Your task to perform on an android device: open a bookmark in the chrome app Image 0: 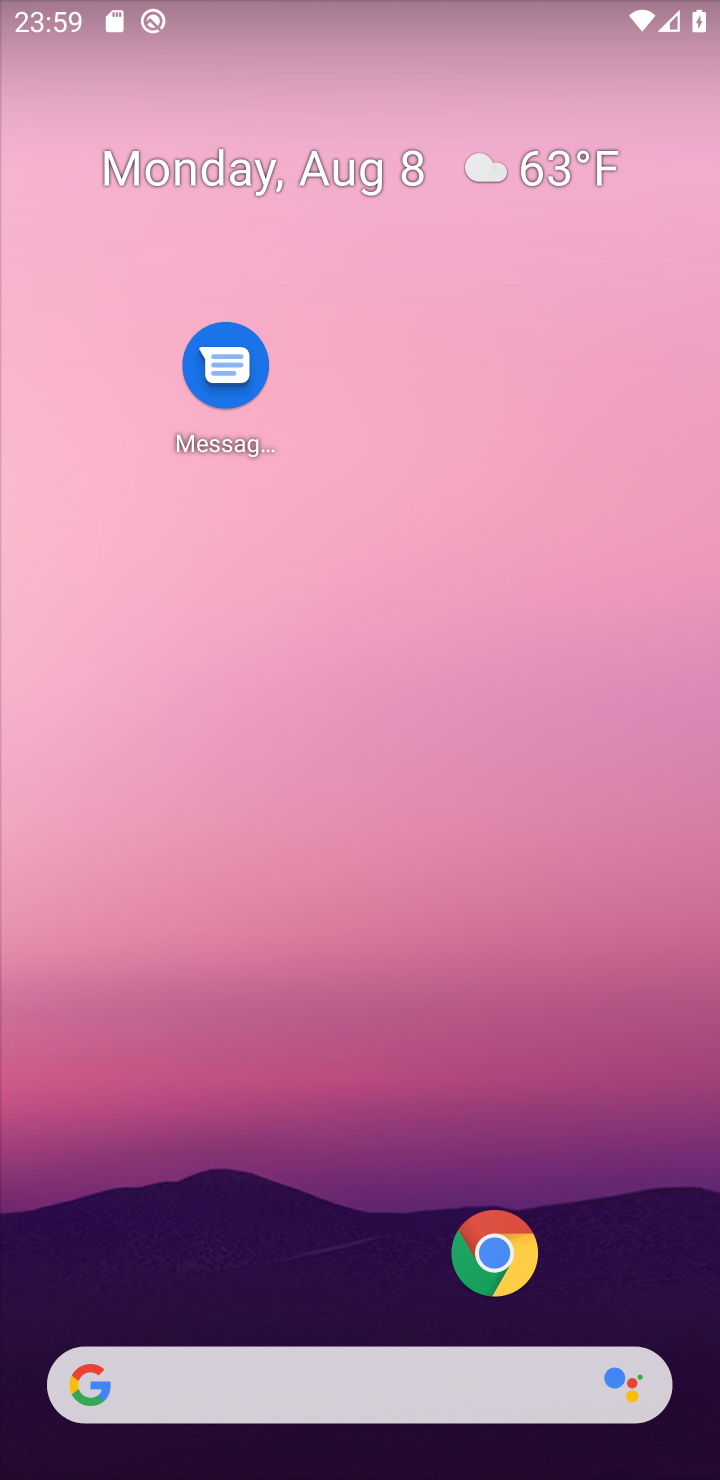
Step 0: drag from (411, 1149) to (420, 313)
Your task to perform on an android device: open a bookmark in the chrome app Image 1: 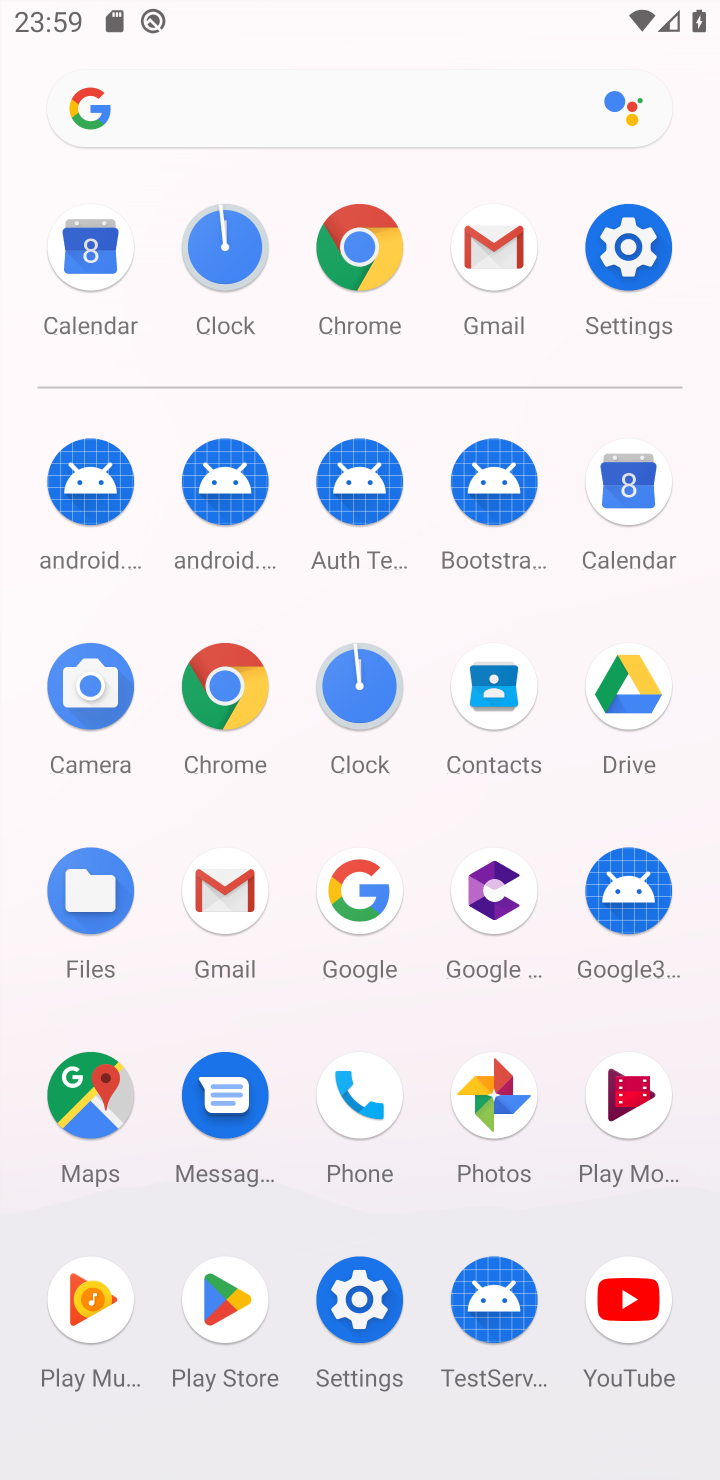
Step 1: click (247, 690)
Your task to perform on an android device: open a bookmark in the chrome app Image 2: 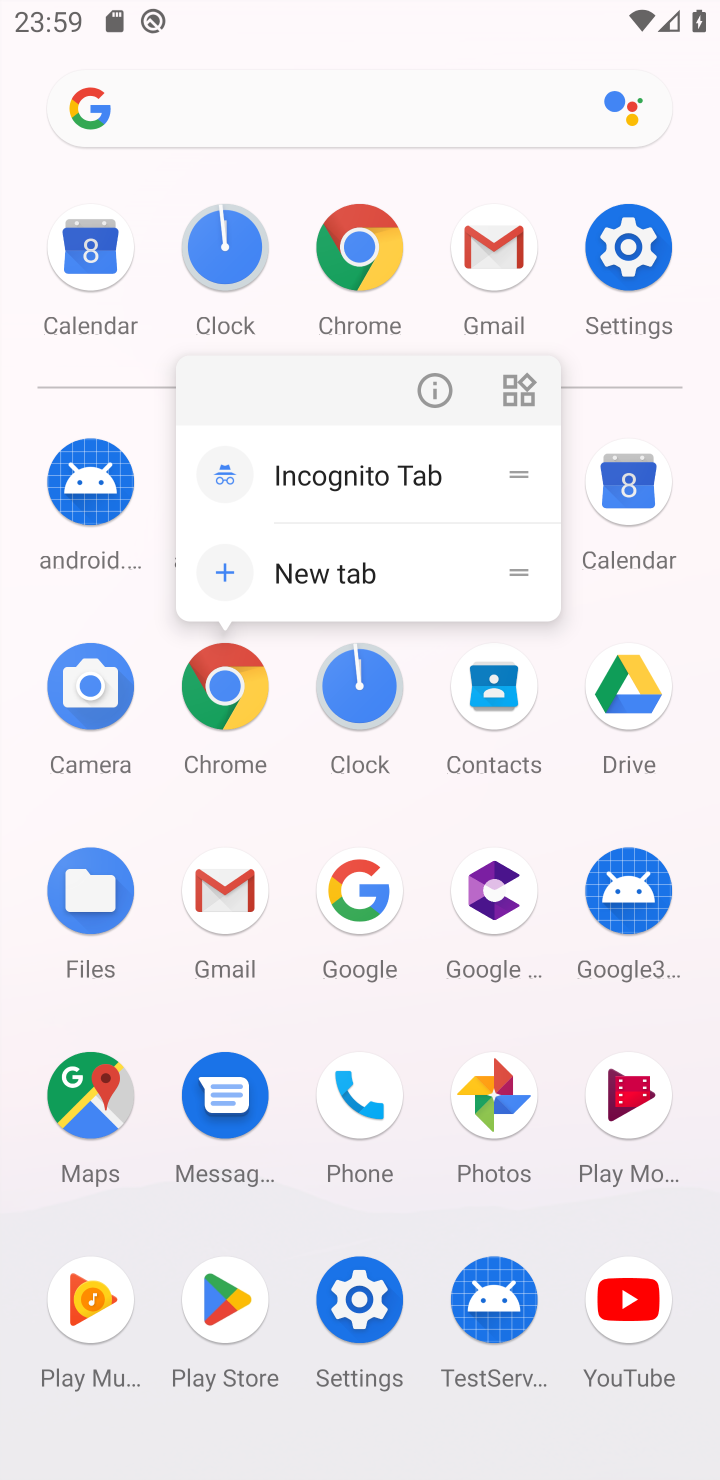
Step 2: click (237, 689)
Your task to perform on an android device: open a bookmark in the chrome app Image 3: 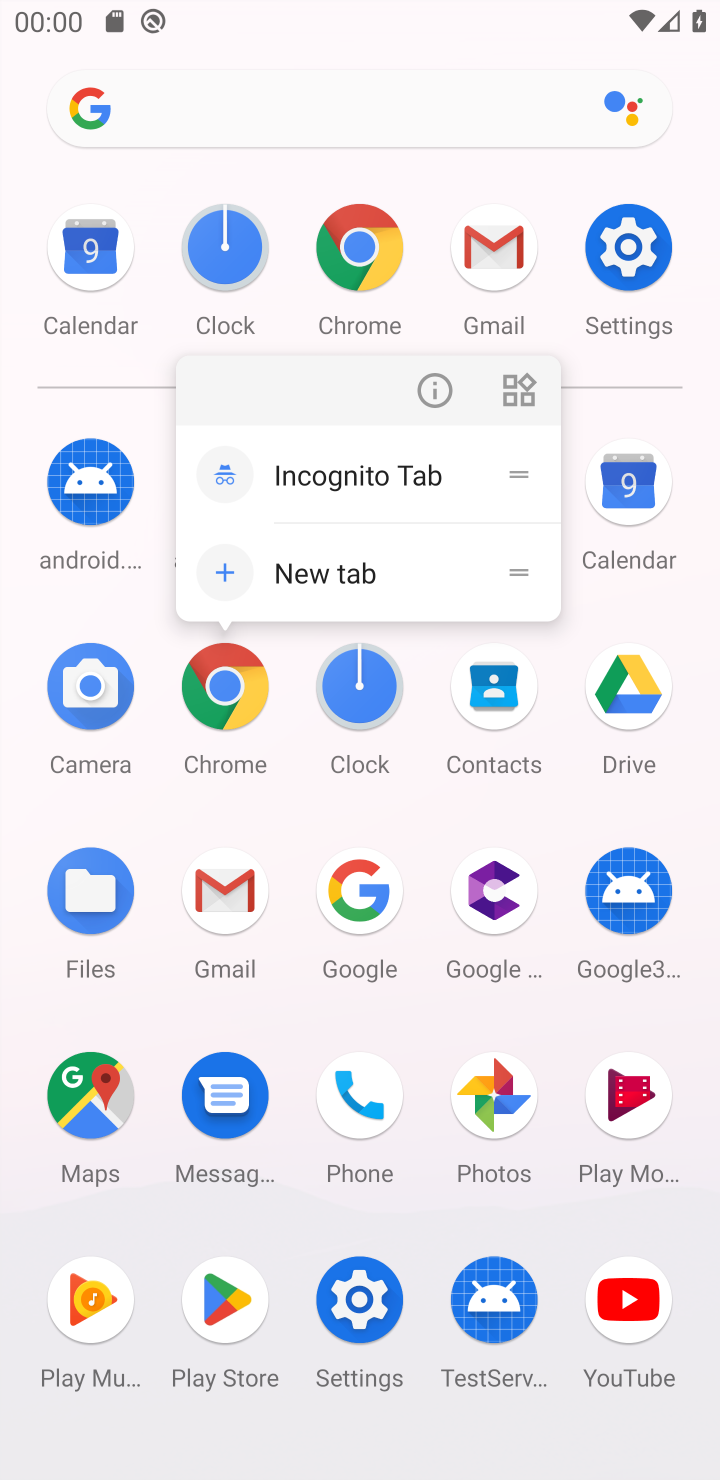
Step 3: click (247, 673)
Your task to perform on an android device: open a bookmark in the chrome app Image 4: 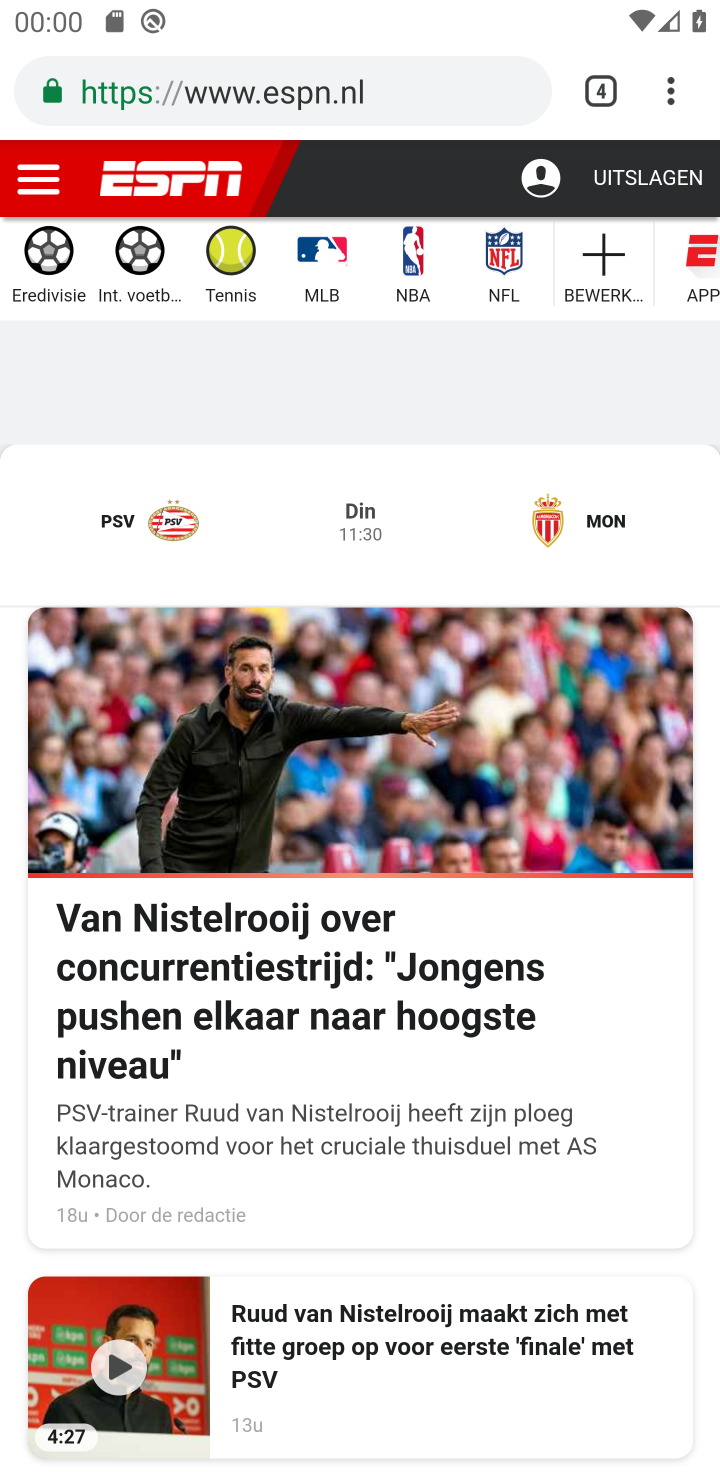
Step 4: click (689, 82)
Your task to perform on an android device: open a bookmark in the chrome app Image 5: 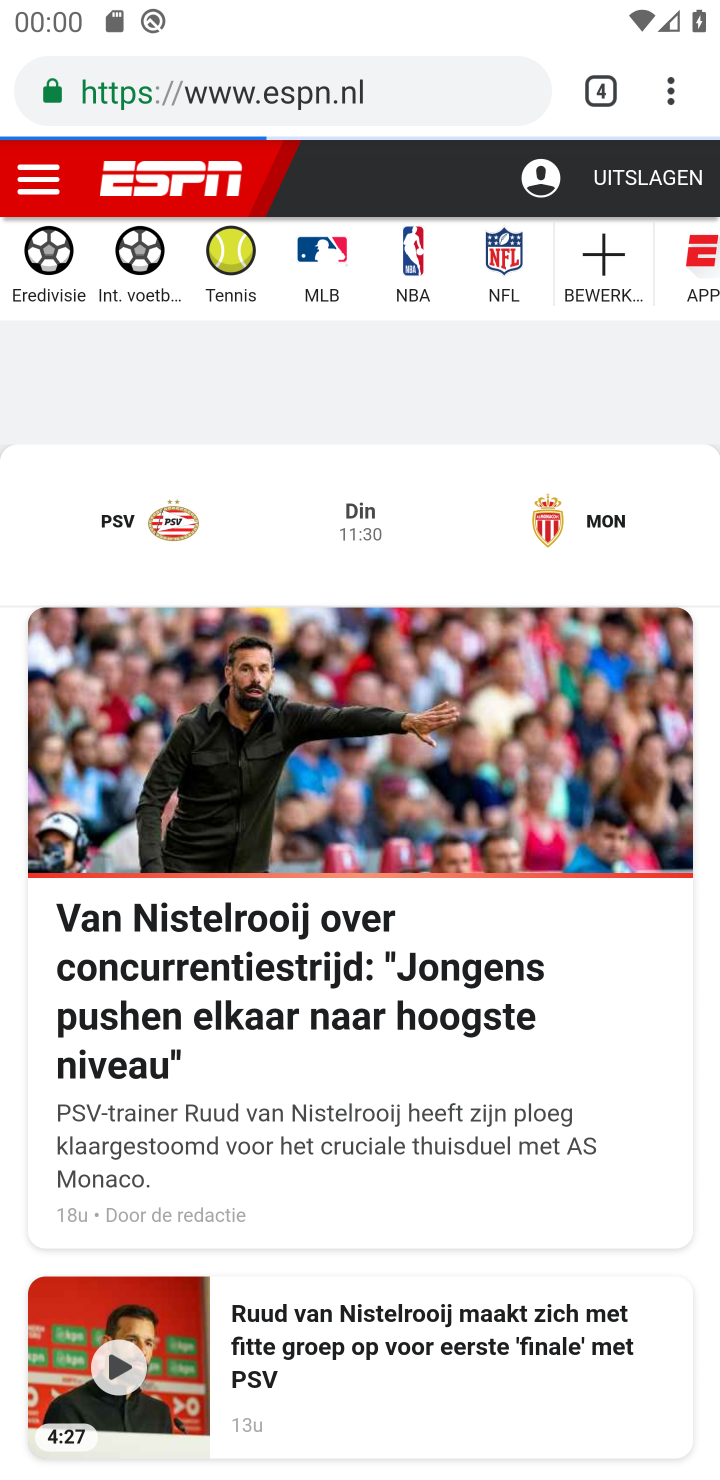
Step 5: click (658, 67)
Your task to perform on an android device: open a bookmark in the chrome app Image 6: 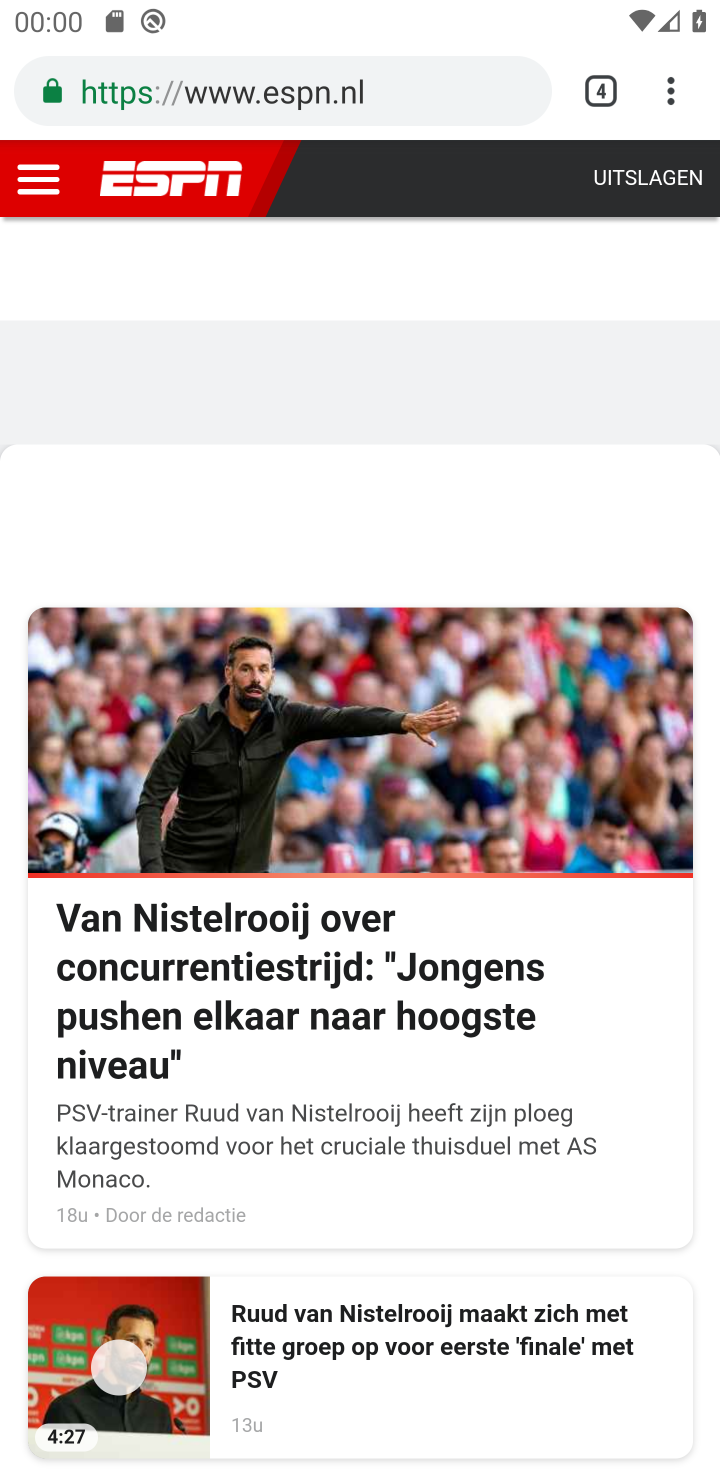
Step 6: click (654, 78)
Your task to perform on an android device: open a bookmark in the chrome app Image 7: 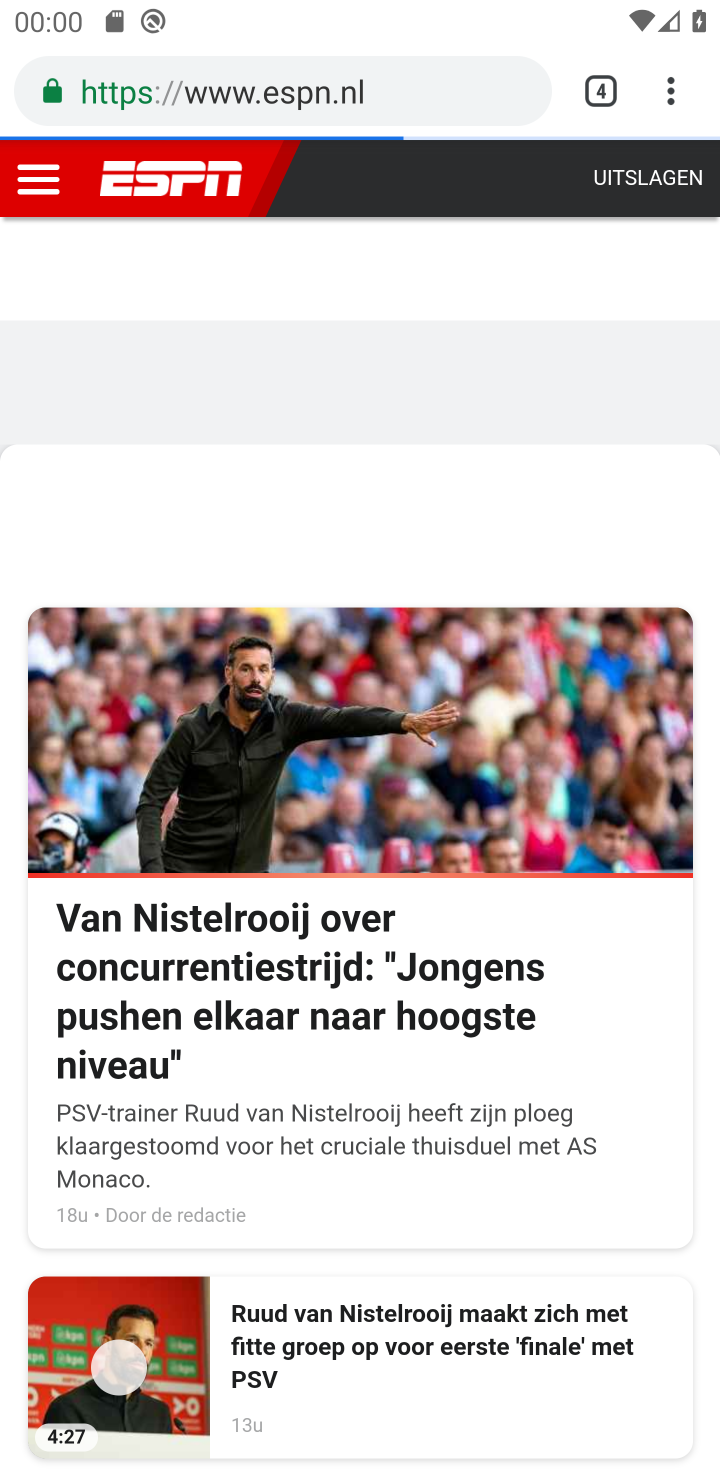
Step 7: click (703, 80)
Your task to perform on an android device: open a bookmark in the chrome app Image 8: 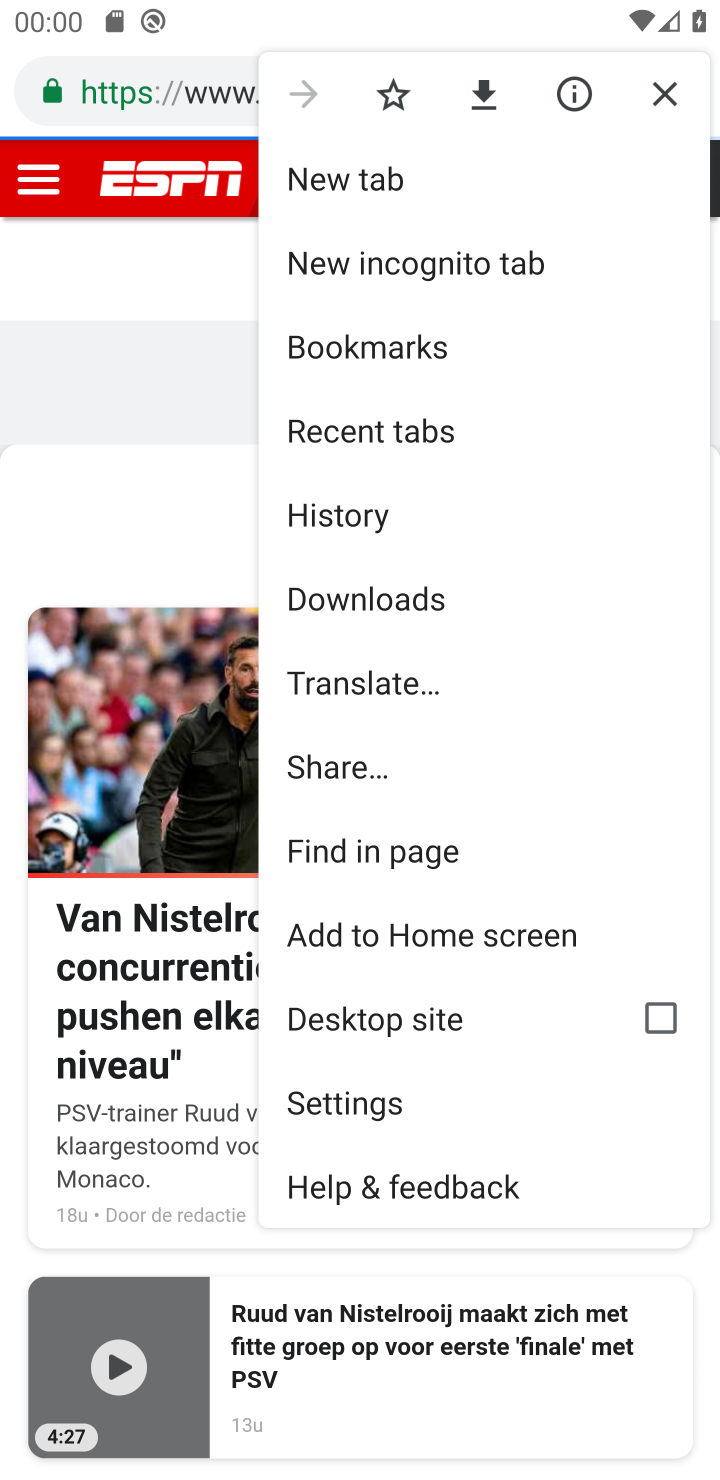
Step 8: click (427, 355)
Your task to perform on an android device: open a bookmark in the chrome app Image 9: 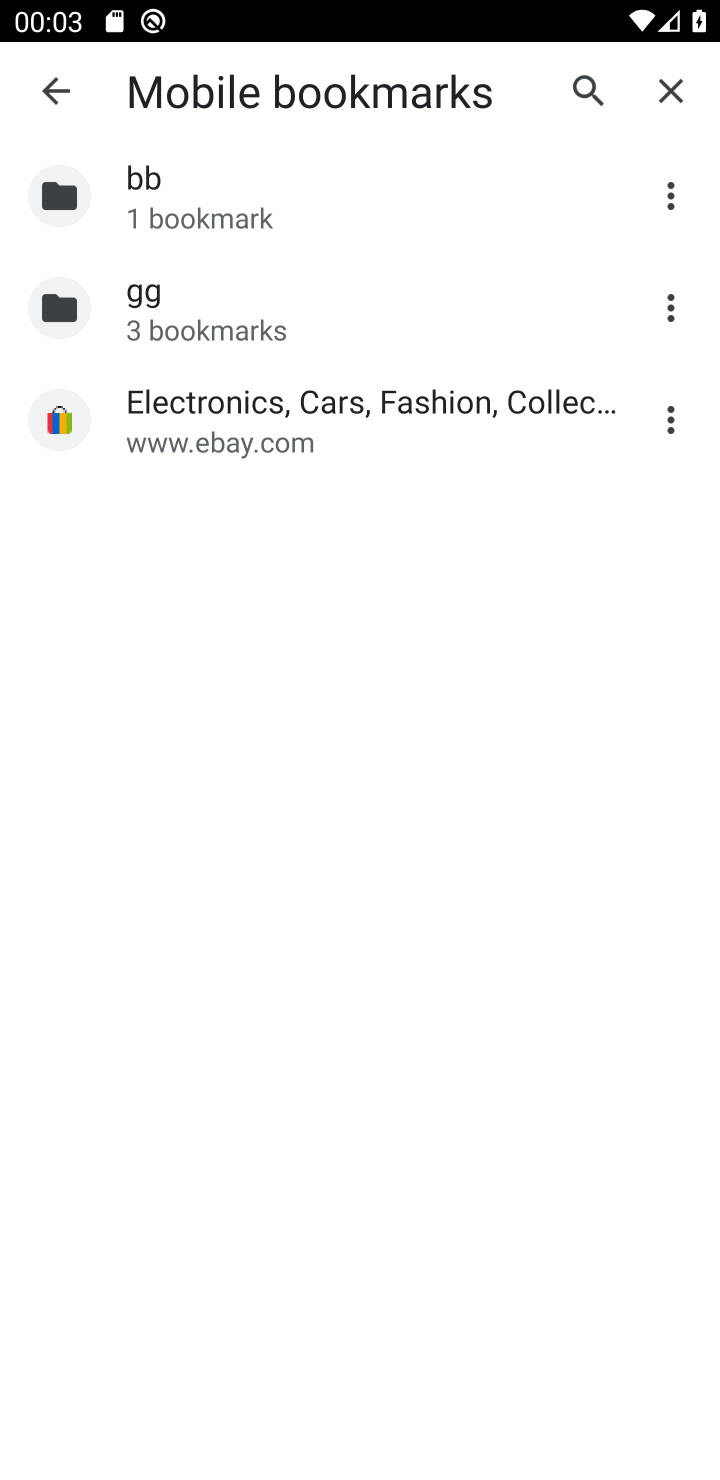
Step 9: task complete